Your task to perform on an android device: search for starred emails in the gmail app Image 0: 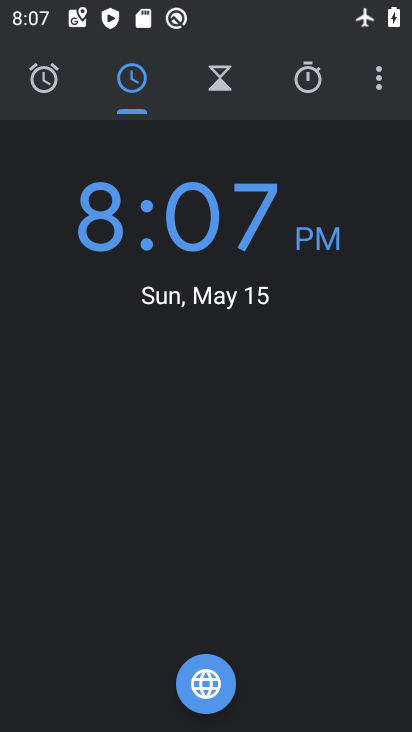
Step 0: click (240, 565)
Your task to perform on an android device: search for starred emails in the gmail app Image 1: 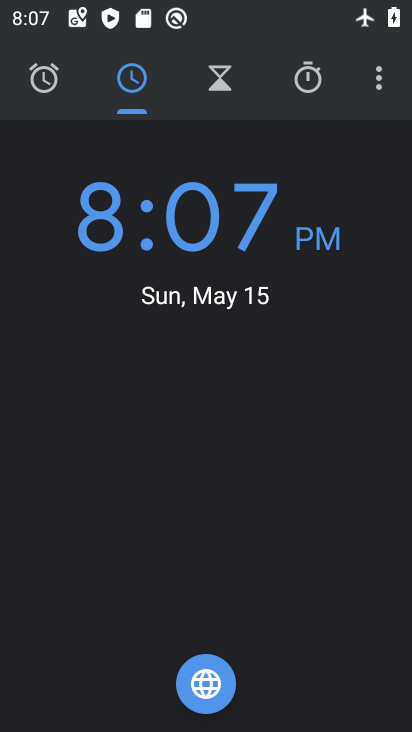
Step 1: press home button
Your task to perform on an android device: search for starred emails in the gmail app Image 2: 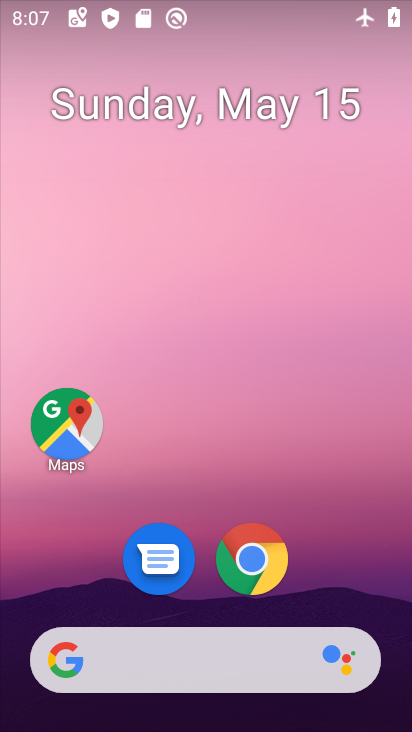
Step 2: drag from (360, 573) to (348, 131)
Your task to perform on an android device: search for starred emails in the gmail app Image 3: 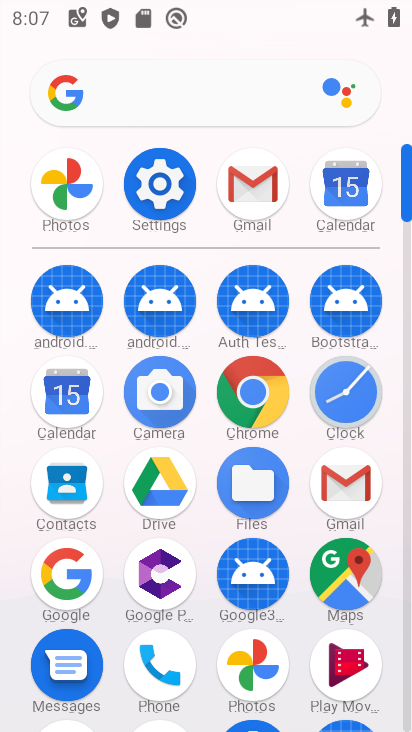
Step 3: click (271, 169)
Your task to perform on an android device: search for starred emails in the gmail app Image 4: 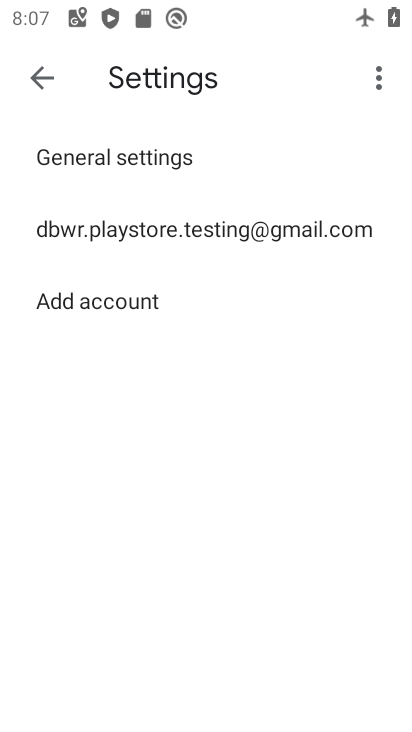
Step 4: click (30, 74)
Your task to perform on an android device: search for starred emails in the gmail app Image 5: 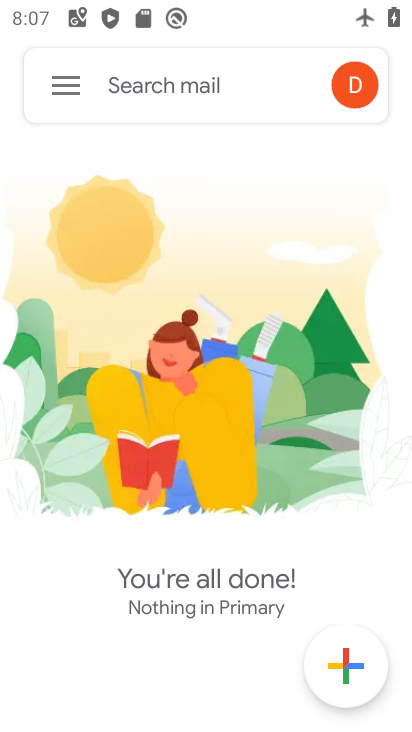
Step 5: click (68, 91)
Your task to perform on an android device: search for starred emails in the gmail app Image 6: 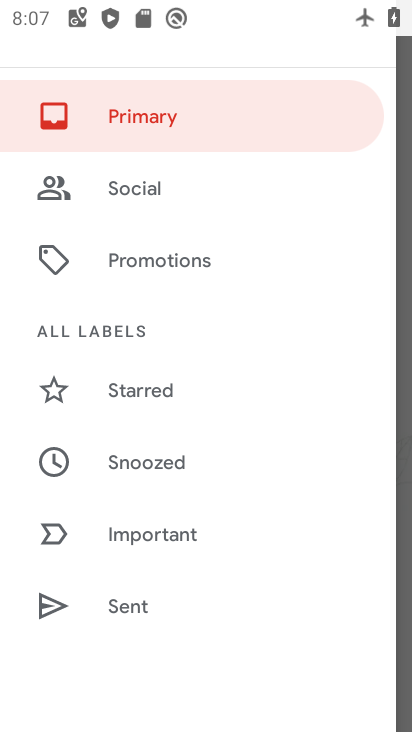
Step 6: click (98, 375)
Your task to perform on an android device: search for starred emails in the gmail app Image 7: 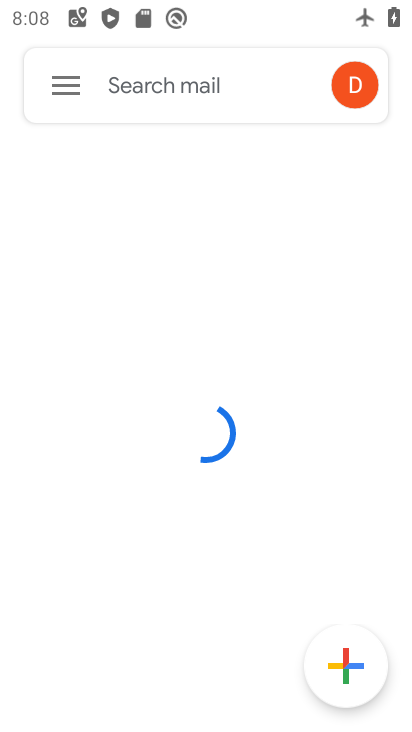
Step 7: task complete